Your task to perform on an android device: Set the phone to "Do not disturb". Image 0: 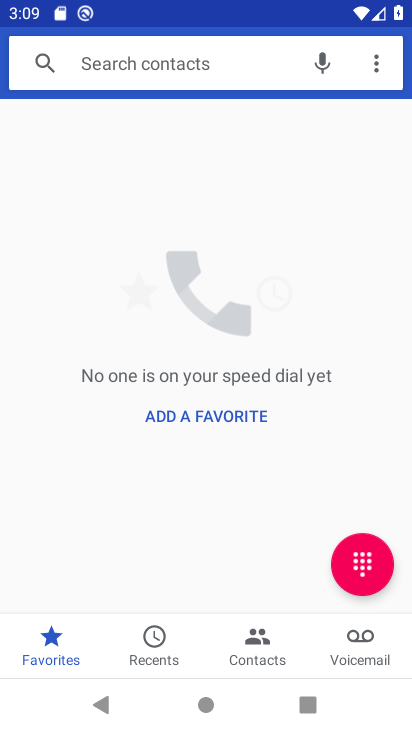
Step 0: press home button
Your task to perform on an android device: Set the phone to "Do not disturb". Image 1: 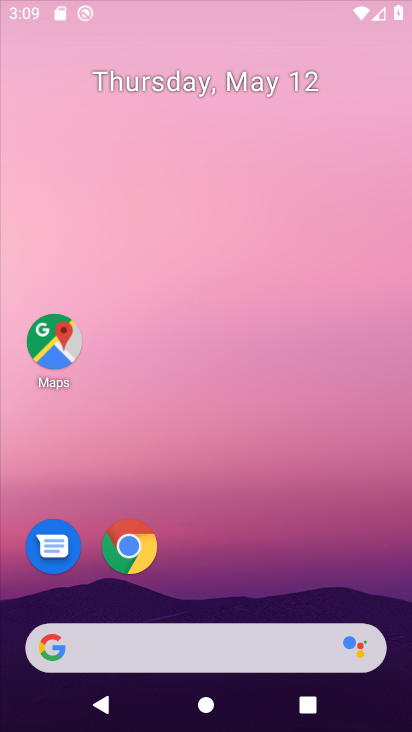
Step 1: drag from (239, 117) to (245, 491)
Your task to perform on an android device: Set the phone to "Do not disturb". Image 2: 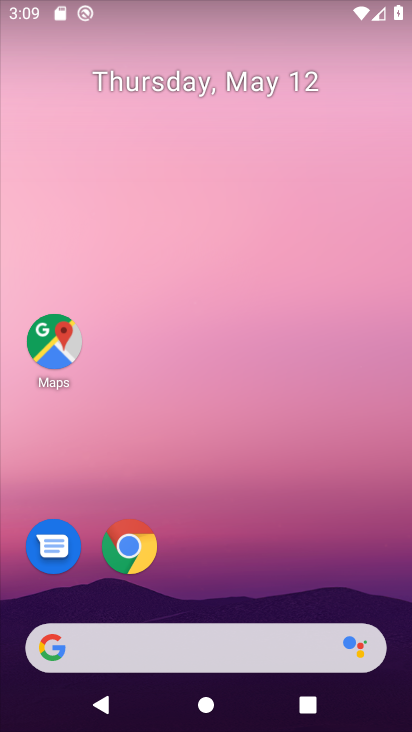
Step 2: drag from (168, 12) to (178, 489)
Your task to perform on an android device: Set the phone to "Do not disturb". Image 3: 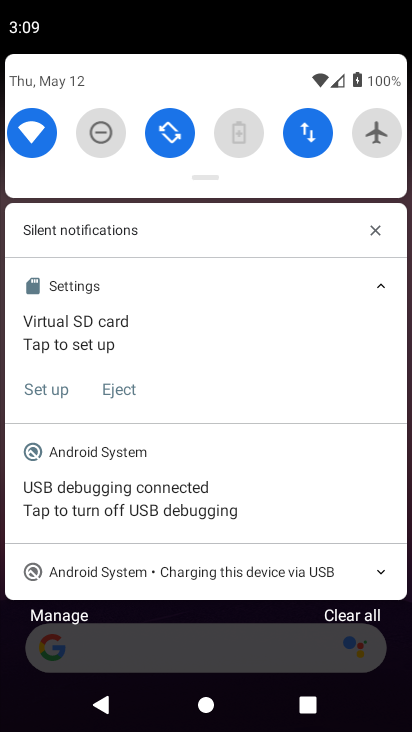
Step 3: click (95, 127)
Your task to perform on an android device: Set the phone to "Do not disturb". Image 4: 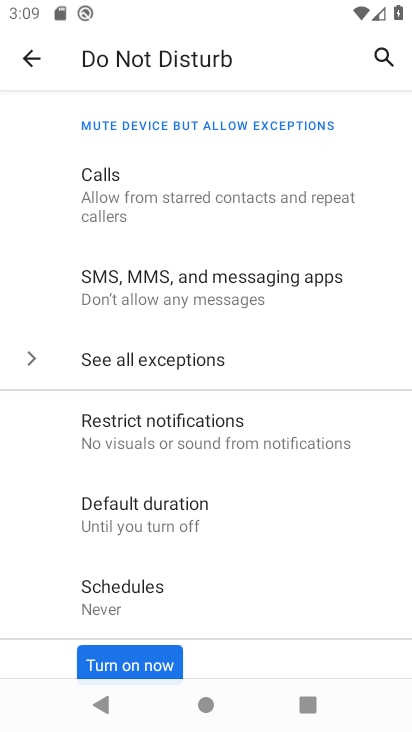
Step 4: click (153, 655)
Your task to perform on an android device: Set the phone to "Do not disturb". Image 5: 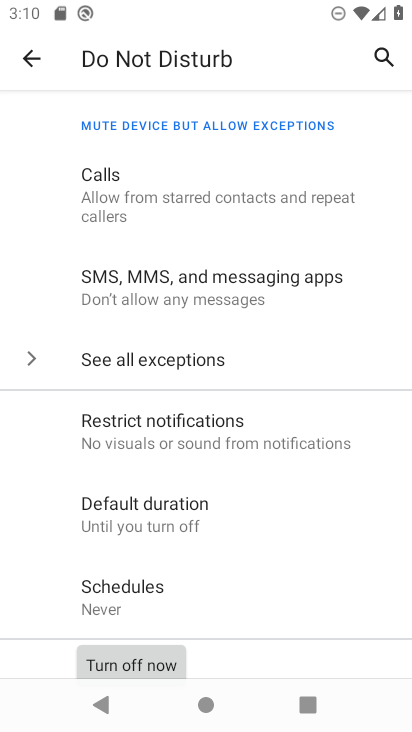
Step 5: task complete